Your task to perform on an android device: set the timer Image 0: 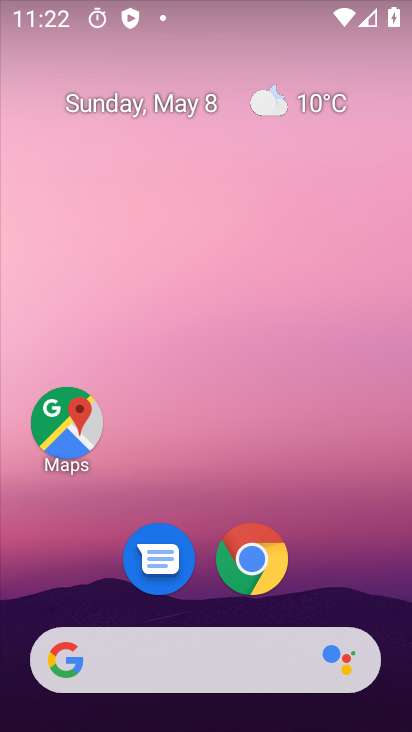
Step 0: drag from (217, 602) to (181, 155)
Your task to perform on an android device: set the timer Image 1: 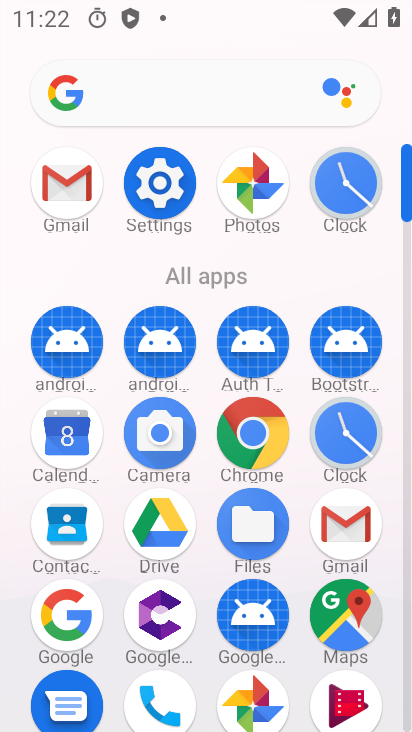
Step 1: click (370, 445)
Your task to perform on an android device: set the timer Image 2: 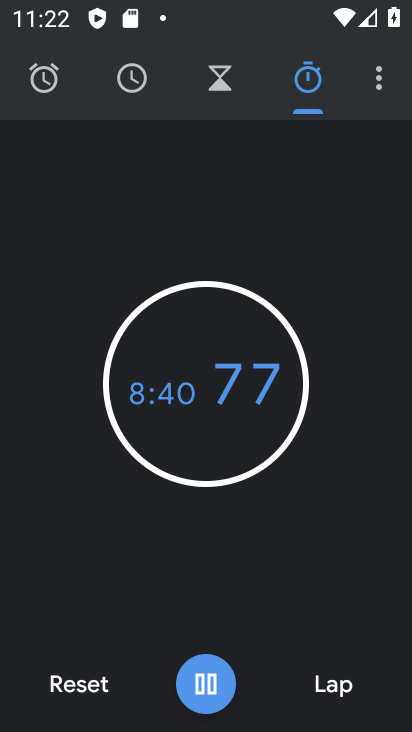
Step 2: click (80, 685)
Your task to perform on an android device: set the timer Image 3: 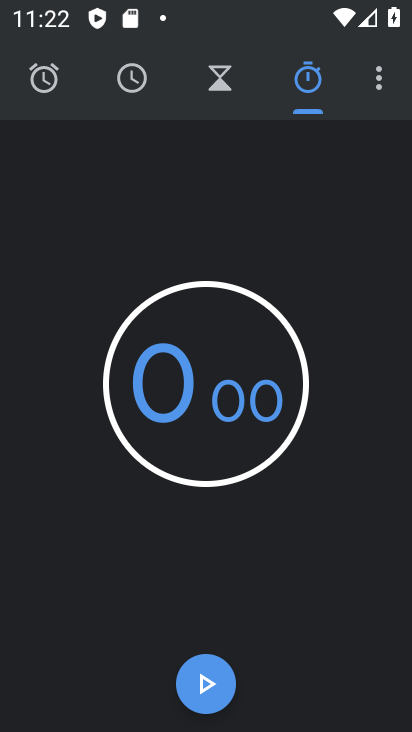
Step 3: click (219, 74)
Your task to perform on an android device: set the timer Image 4: 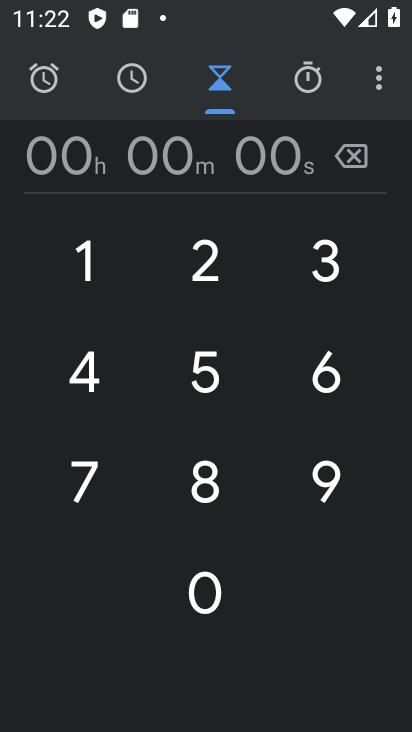
Step 4: click (210, 355)
Your task to perform on an android device: set the timer Image 5: 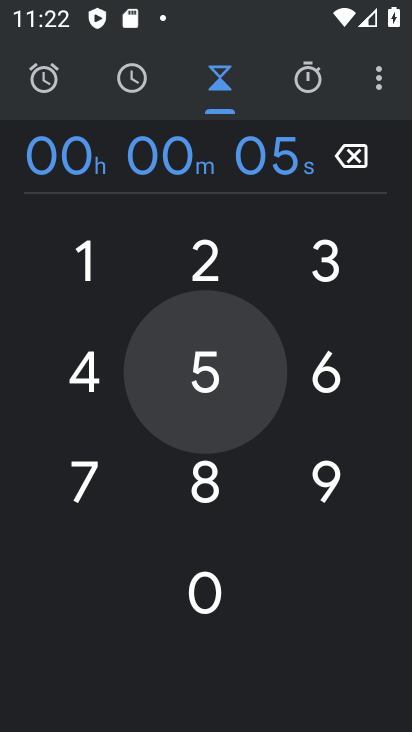
Step 5: click (71, 387)
Your task to perform on an android device: set the timer Image 6: 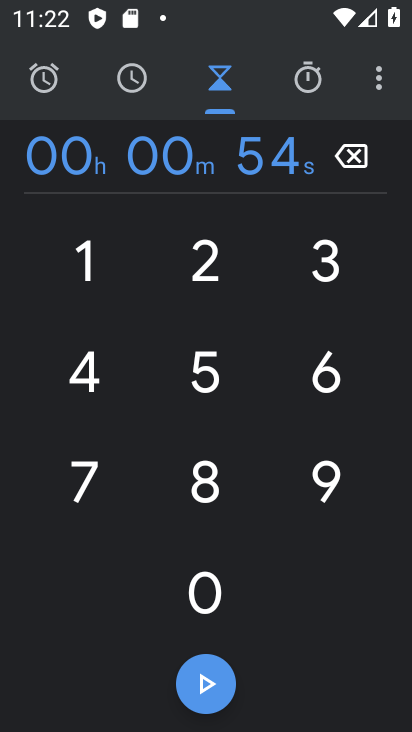
Step 6: click (335, 497)
Your task to perform on an android device: set the timer Image 7: 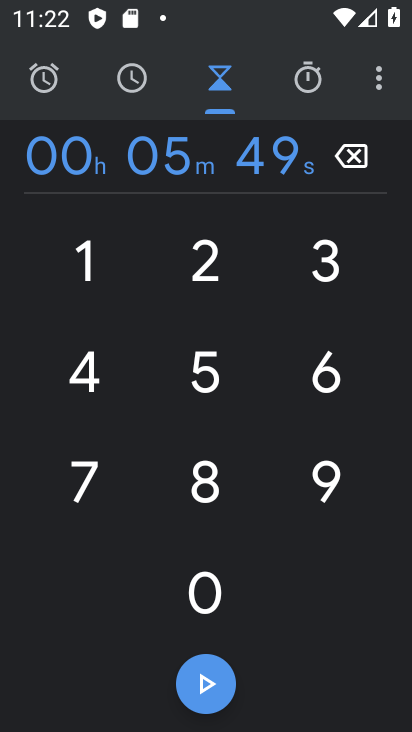
Step 7: click (227, 672)
Your task to perform on an android device: set the timer Image 8: 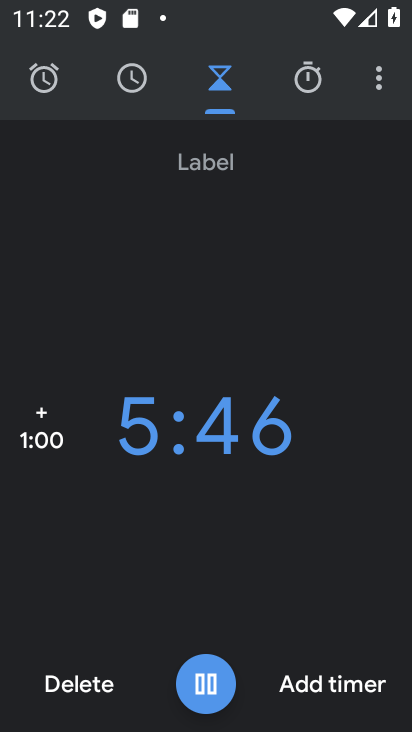
Step 8: task complete